Your task to perform on an android device: When is my next appointment? Image 0: 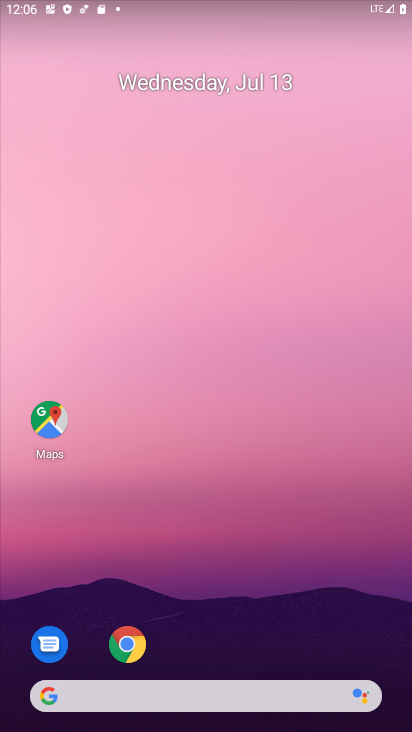
Step 0: drag from (225, 645) to (257, 118)
Your task to perform on an android device: When is my next appointment? Image 1: 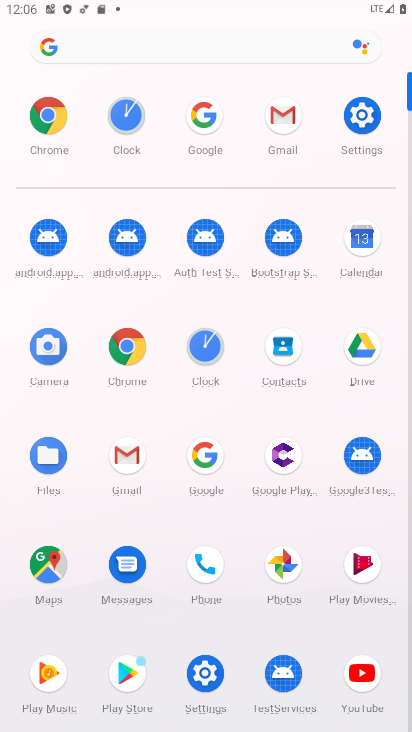
Step 1: click (363, 232)
Your task to perform on an android device: When is my next appointment? Image 2: 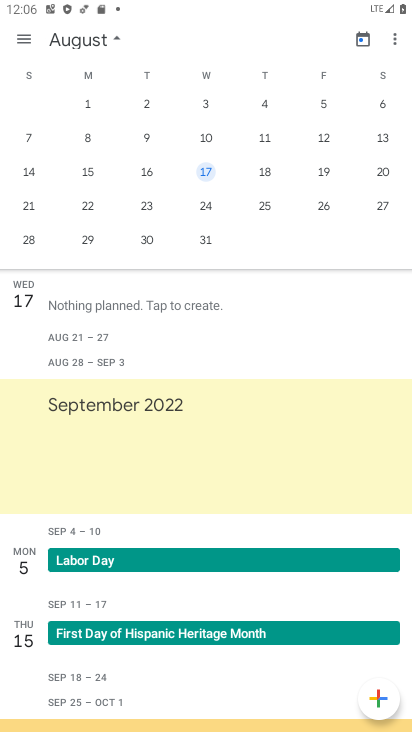
Step 2: drag from (18, 221) to (408, 191)
Your task to perform on an android device: When is my next appointment? Image 3: 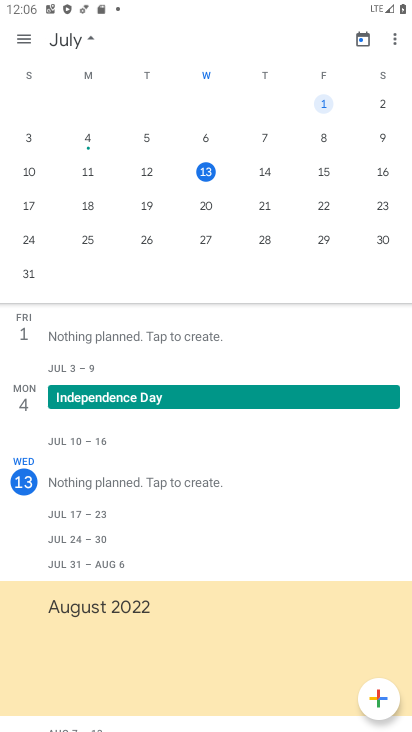
Step 3: click (323, 171)
Your task to perform on an android device: When is my next appointment? Image 4: 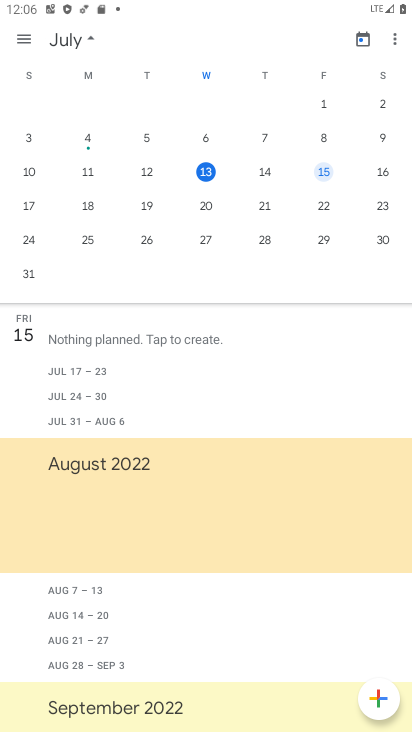
Step 4: task complete